Your task to perform on an android device: When is my next meeting? Image 0: 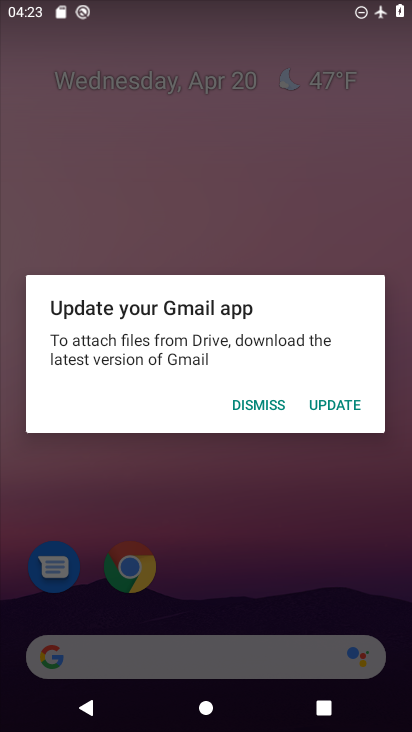
Step 0: press home button
Your task to perform on an android device: When is my next meeting? Image 1: 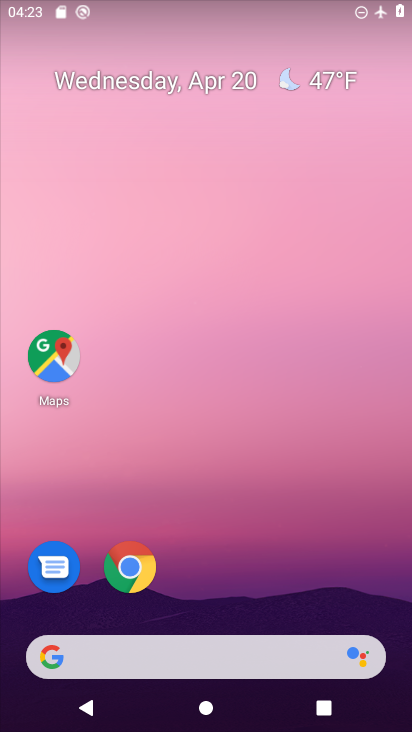
Step 1: drag from (209, 584) to (226, 147)
Your task to perform on an android device: When is my next meeting? Image 2: 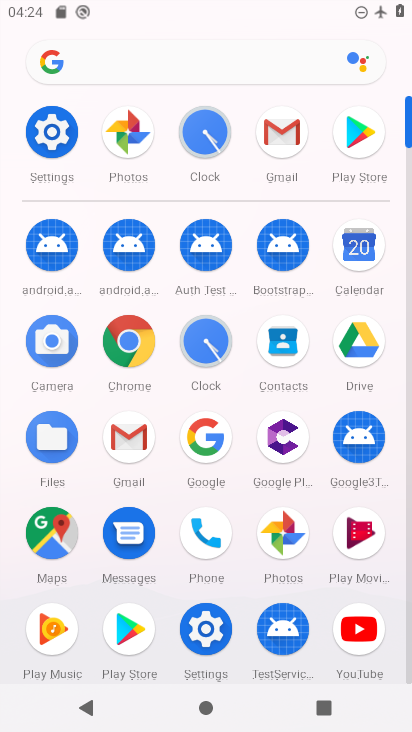
Step 2: click (366, 270)
Your task to perform on an android device: When is my next meeting? Image 3: 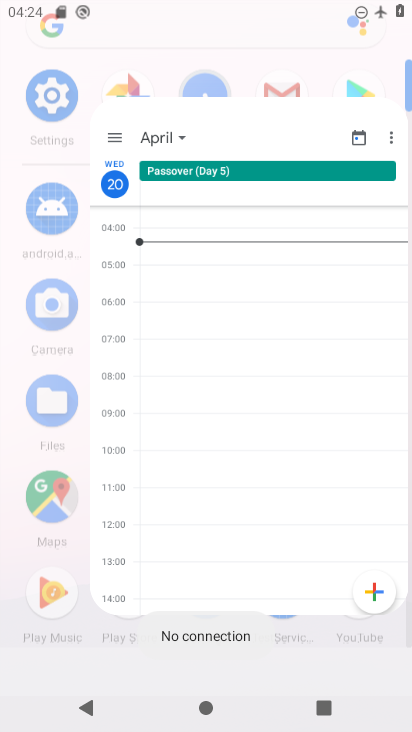
Step 3: click (363, 260)
Your task to perform on an android device: When is my next meeting? Image 4: 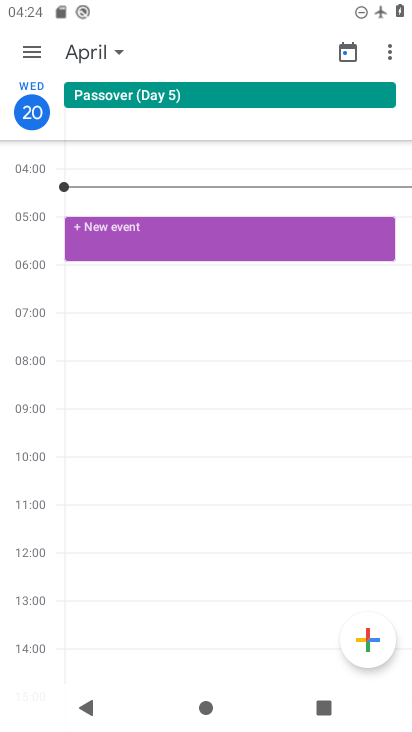
Step 4: click (40, 47)
Your task to perform on an android device: When is my next meeting? Image 5: 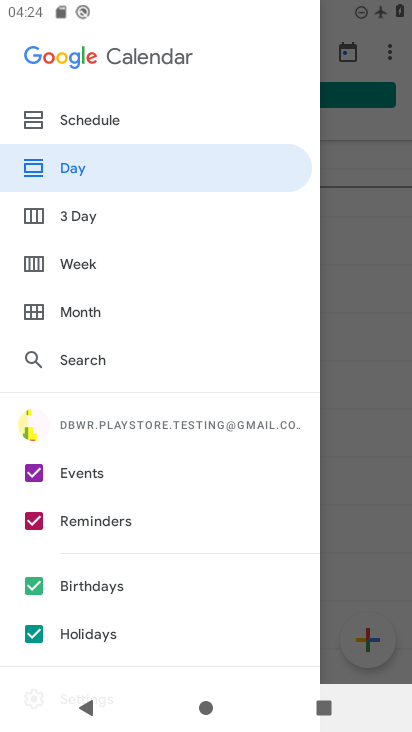
Step 5: task complete